Your task to perform on an android device: Go to eBay Image 0: 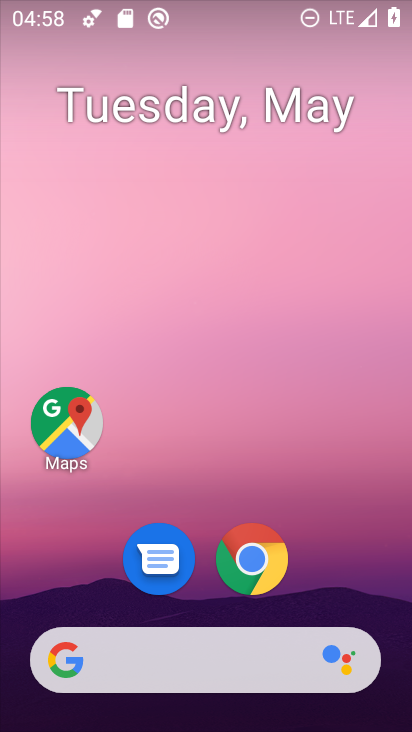
Step 0: click (264, 557)
Your task to perform on an android device: Go to eBay Image 1: 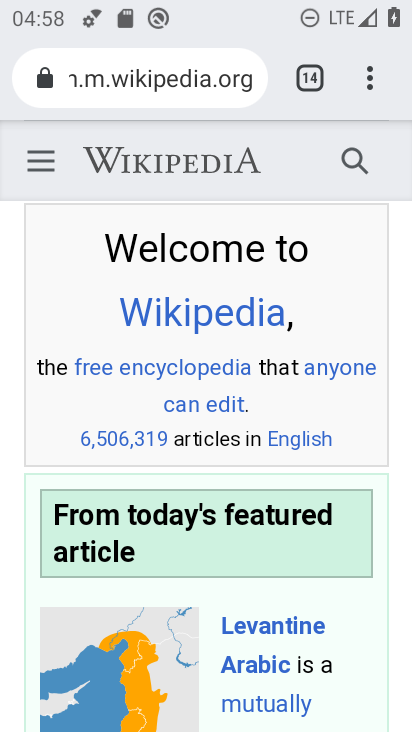
Step 1: click (372, 84)
Your task to perform on an android device: Go to eBay Image 2: 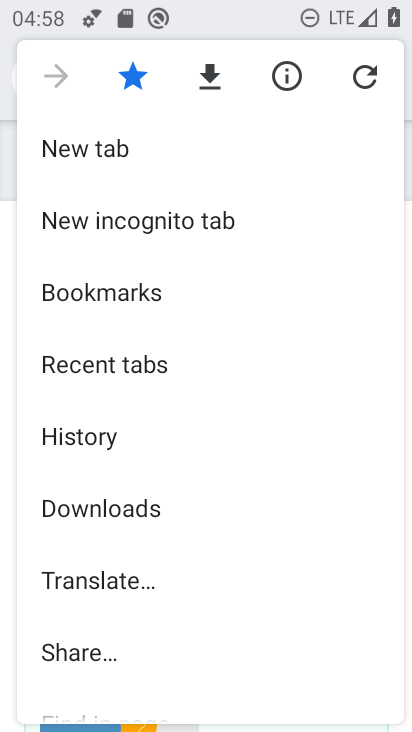
Step 2: click (86, 149)
Your task to perform on an android device: Go to eBay Image 3: 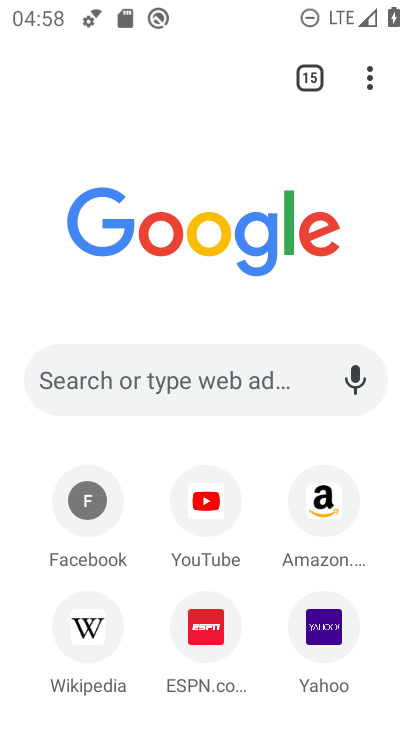
Step 3: click (199, 369)
Your task to perform on an android device: Go to eBay Image 4: 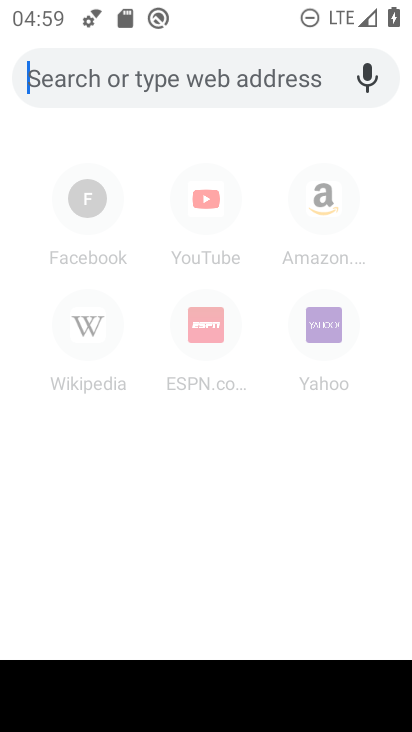
Step 4: type "eBay"
Your task to perform on an android device: Go to eBay Image 5: 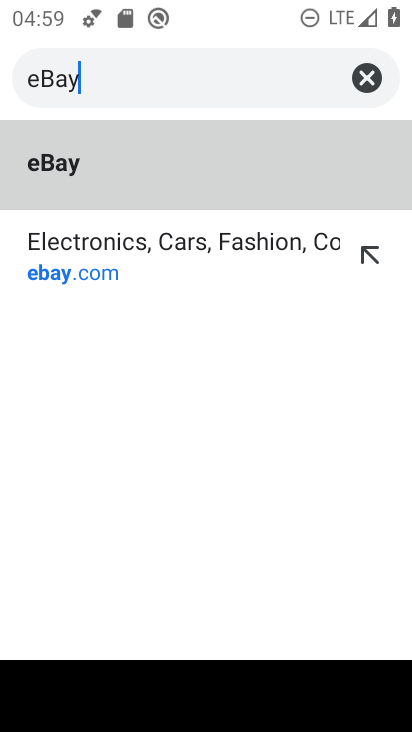
Step 5: click (82, 171)
Your task to perform on an android device: Go to eBay Image 6: 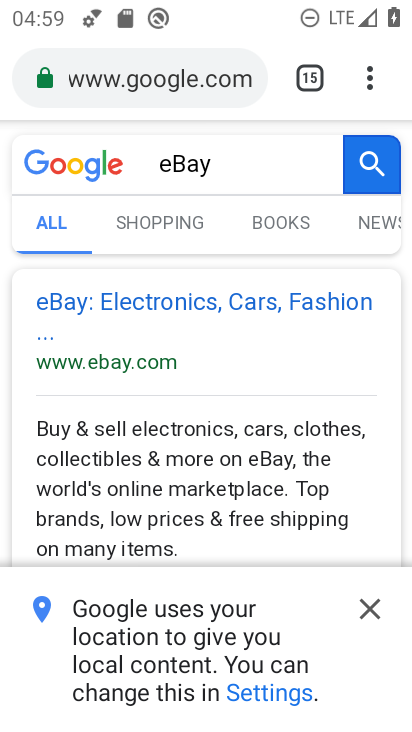
Step 6: click (137, 303)
Your task to perform on an android device: Go to eBay Image 7: 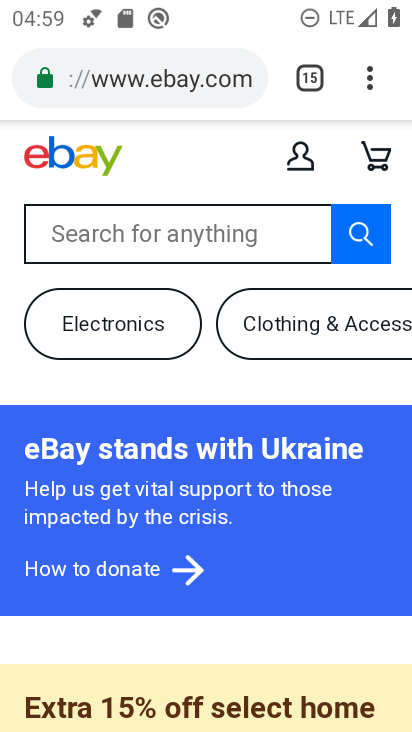
Step 7: task complete